Your task to perform on an android device: toggle translation in the chrome app Image 0: 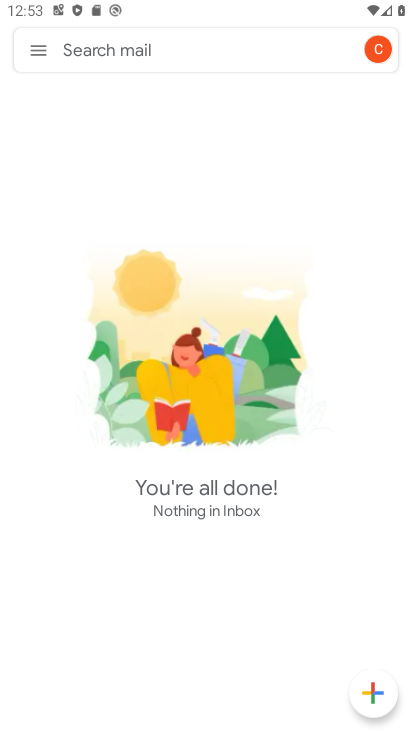
Step 0: press home button
Your task to perform on an android device: toggle translation in the chrome app Image 1: 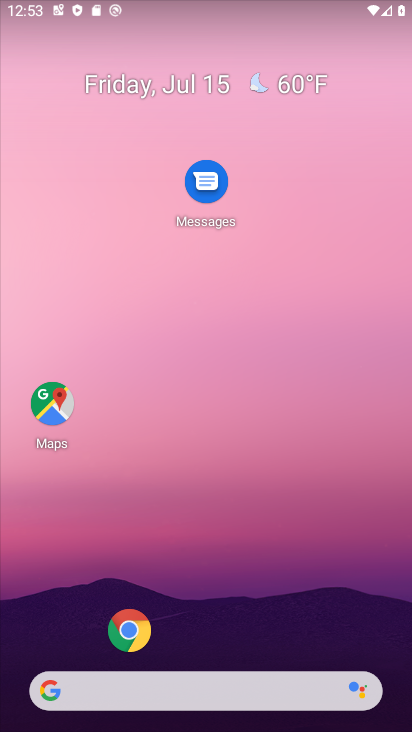
Step 1: click (123, 627)
Your task to perform on an android device: toggle translation in the chrome app Image 2: 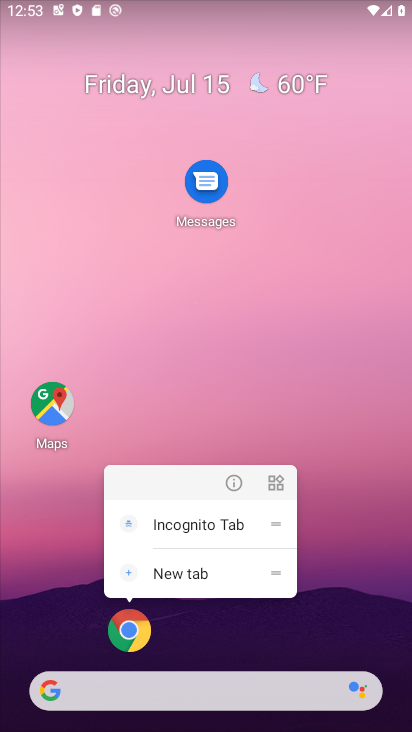
Step 2: click (124, 631)
Your task to perform on an android device: toggle translation in the chrome app Image 3: 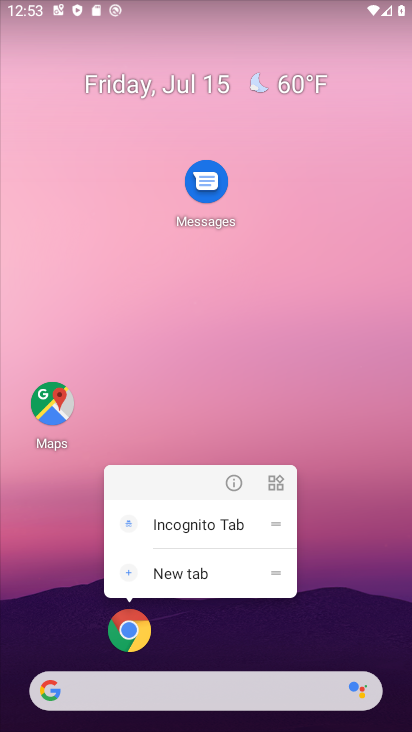
Step 3: click (131, 639)
Your task to perform on an android device: toggle translation in the chrome app Image 4: 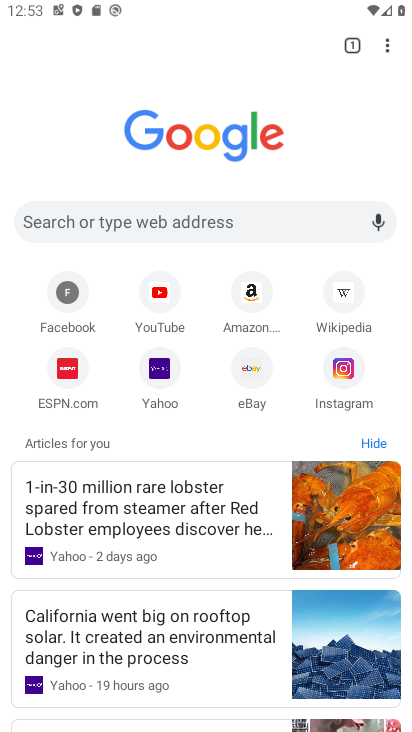
Step 4: click (391, 38)
Your task to perform on an android device: toggle translation in the chrome app Image 5: 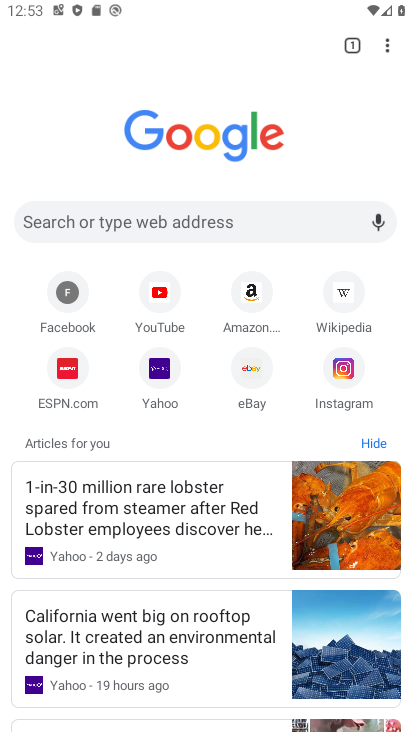
Step 5: click (384, 43)
Your task to perform on an android device: toggle translation in the chrome app Image 6: 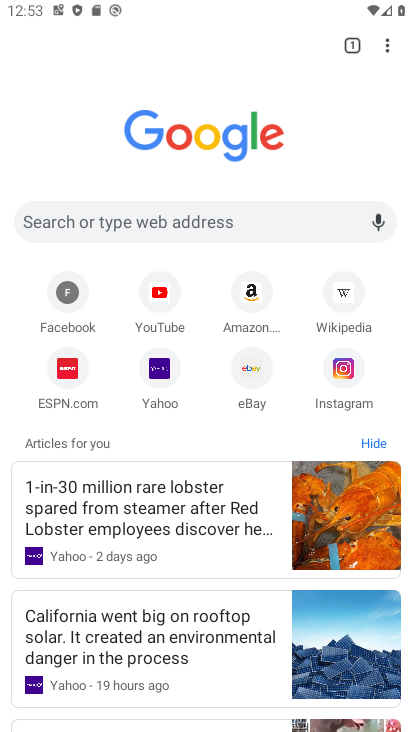
Step 6: click (392, 42)
Your task to perform on an android device: toggle translation in the chrome app Image 7: 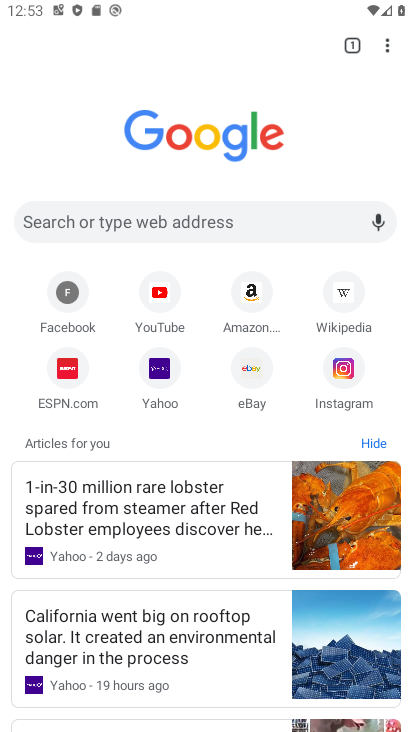
Step 7: task complete